Your task to perform on an android device: show emergency info Image 0: 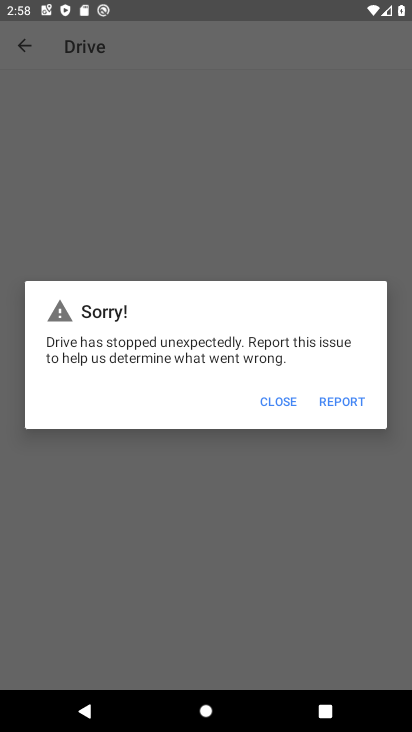
Step 0: press home button
Your task to perform on an android device: show emergency info Image 1: 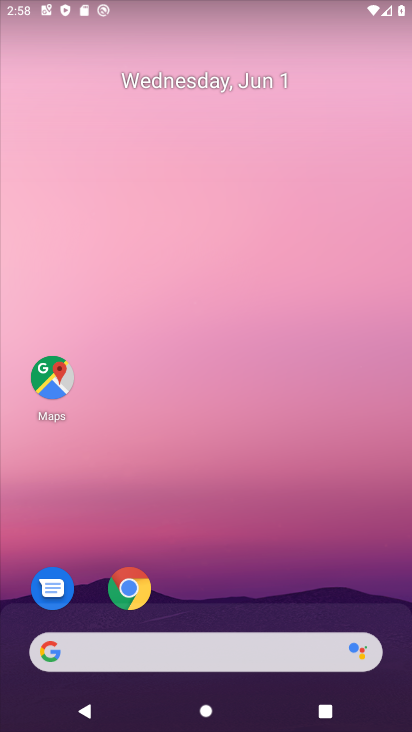
Step 1: drag from (229, 660) to (369, 110)
Your task to perform on an android device: show emergency info Image 2: 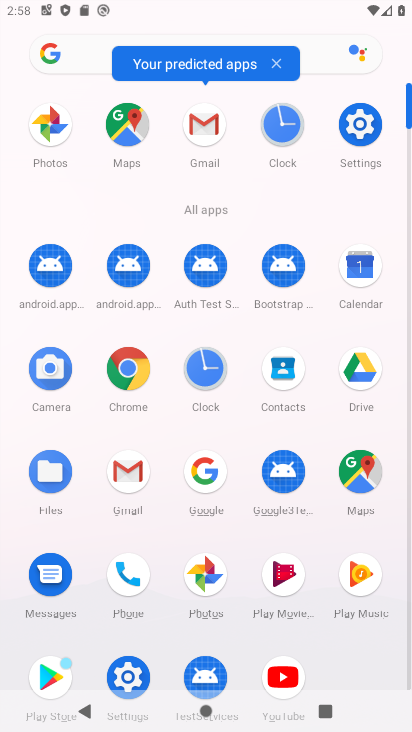
Step 2: drag from (168, 615) to (233, 424)
Your task to perform on an android device: show emergency info Image 3: 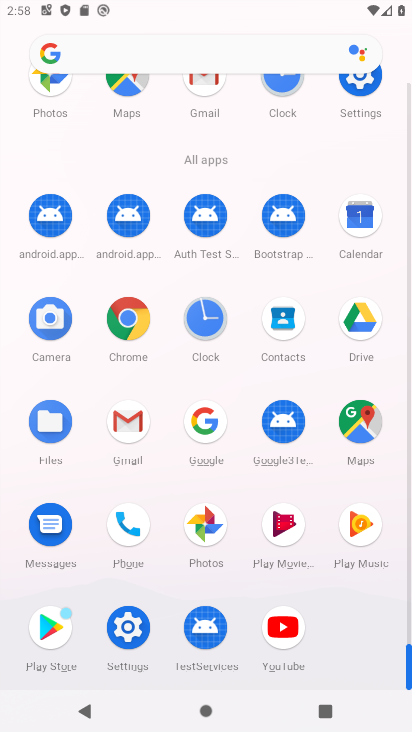
Step 3: click (131, 630)
Your task to perform on an android device: show emergency info Image 4: 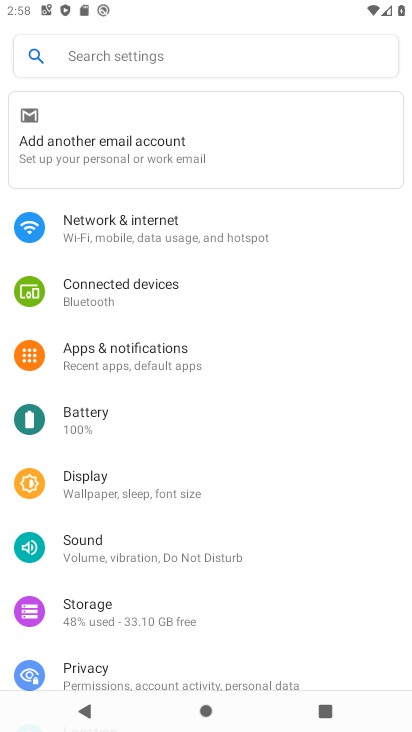
Step 4: drag from (142, 630) to (342, 84)
Your task to perform on an android device: show emergency info Image 5: 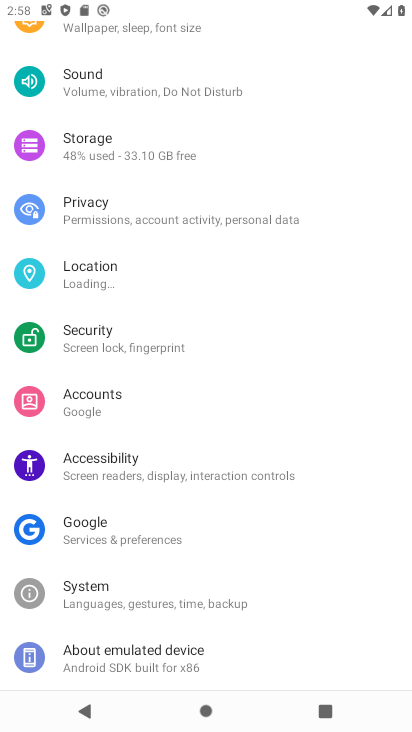
Step 5: drag from (146, 576) to (238, 242)
Your task to perform on an android device: show emergency info Image 6: 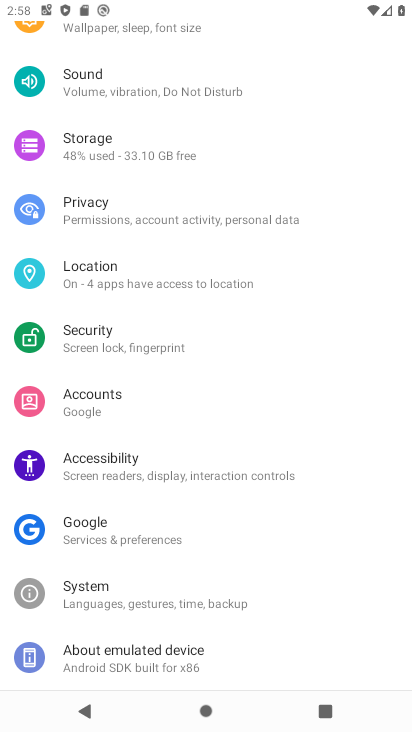
Step 6: click (169, 675)
Your task to perform on an android device: show emergency info Image 7: 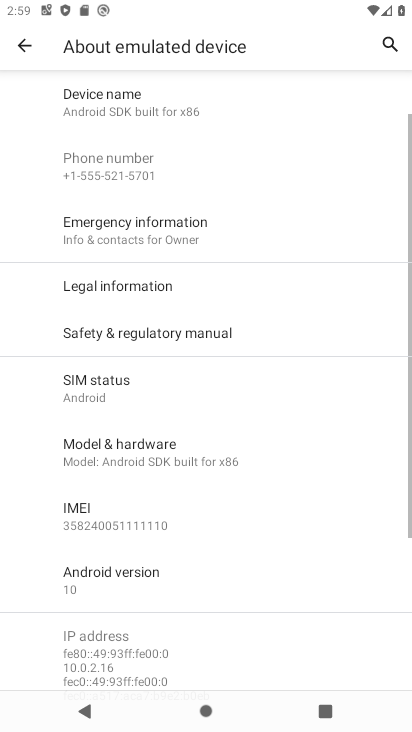
Step 7: click (230, 259)
Your task to perform on an android device: show emergency info Image 8: 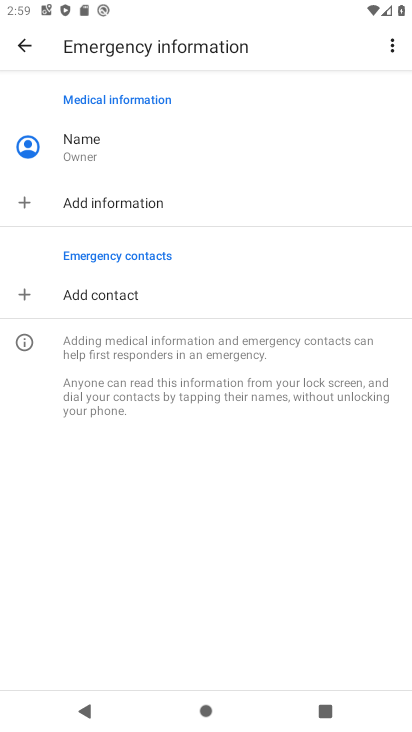
Step 8: task complete